Your task to perform on an android device: toggle notification dots Image 0: 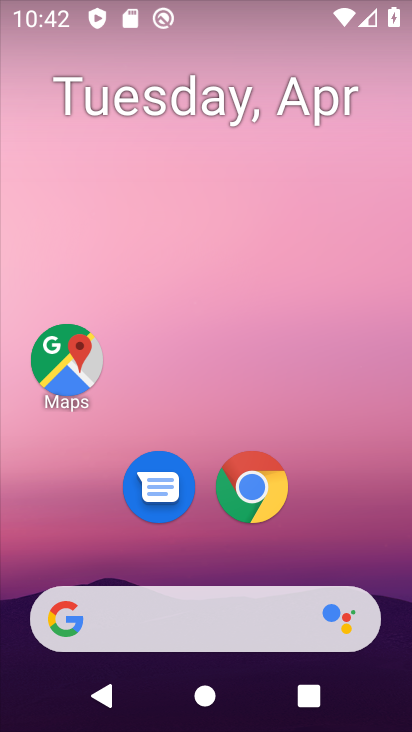
Step 0: drag from (226, 271) to (197, 173)
Your task to perform on an android device: toggle notification dots Image 1: 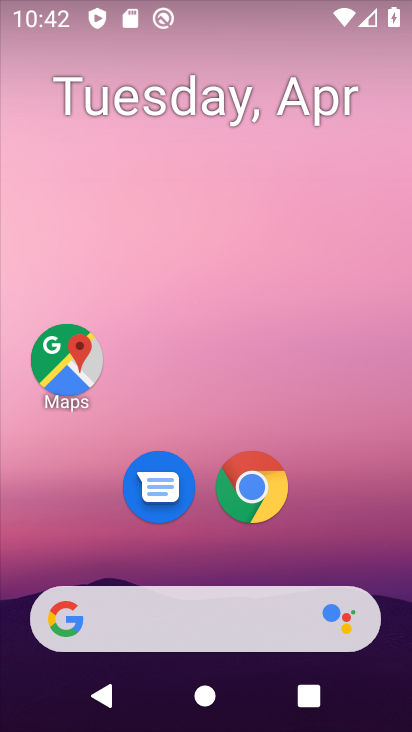
Step 1: drag from (220, 142) to (223, 24)
Your task to perform on an android device: toggle notification dots Image 2: 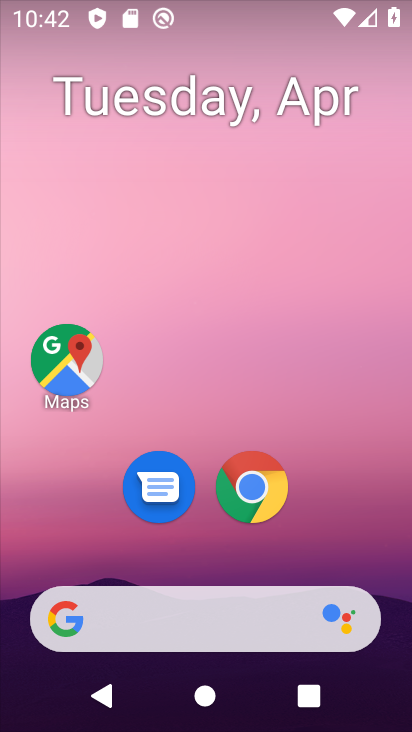
Step 2: drag from (216, 618) to (203, 211)
Your task to perform on an android device: toggle notification dots Image 3: 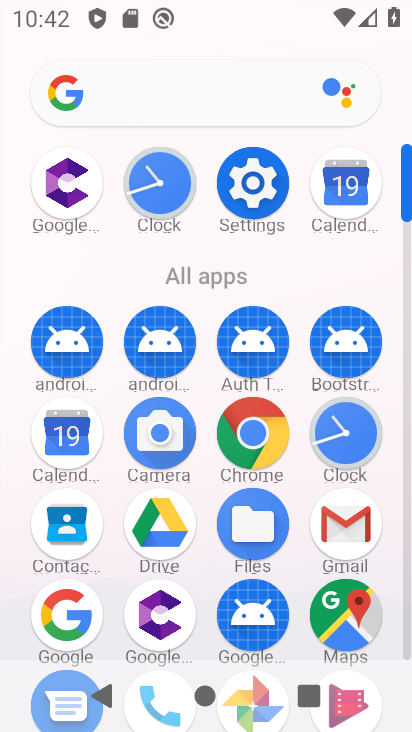
Step 3: click (254, 206)
Your task to perform on an android device: toggle notification dots Image 4: 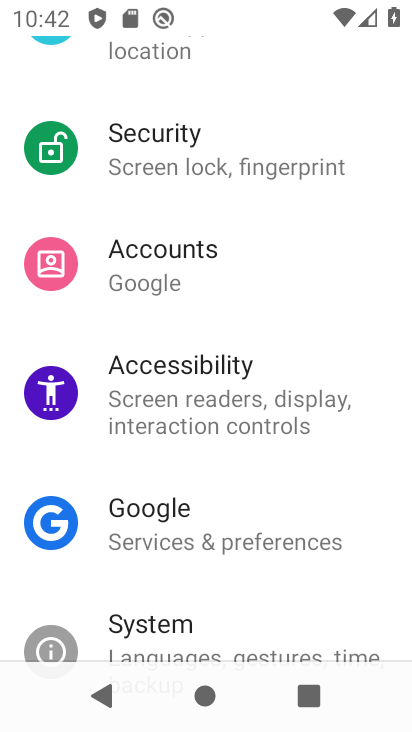
Step 4: drag from (235, 572) to (232, 696)
Your task to perform on an android device: toggle notification dots Image 5: 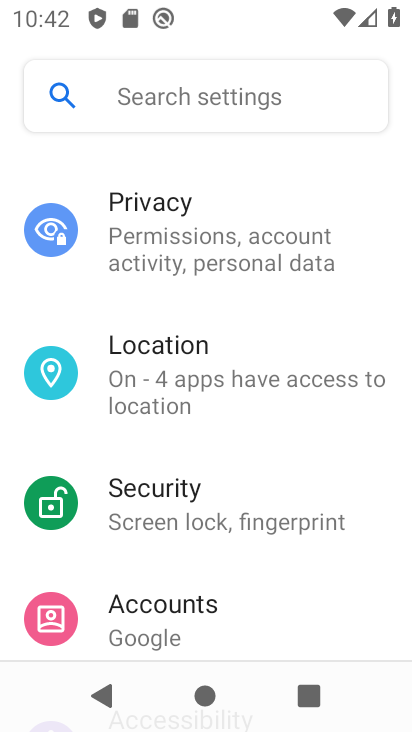
Step 5: drag from (239, 146) to (106, 694)
Your task to perform on an android device: toggle notification dots Image 6: 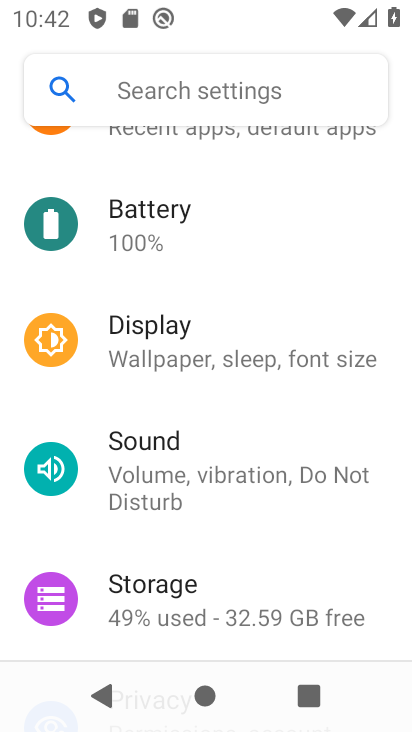
Step 6: drag from (215, 301) to (160, 693)
Your task to perform on an android device: toggle notification dots Image 7: 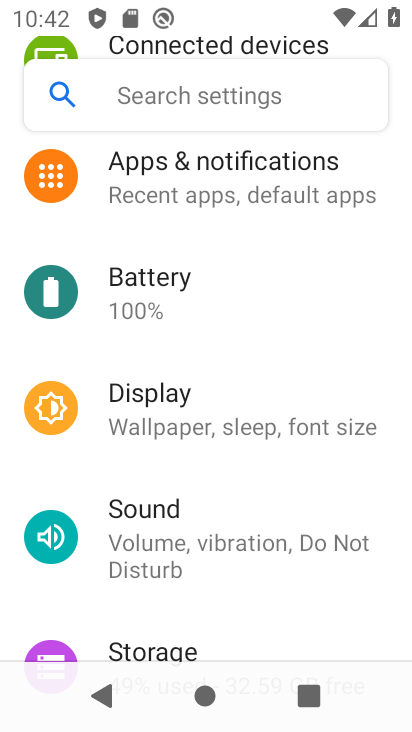
Step 7: click (201, 191)
Your task to perform on an android device: toggle notification dots Image 8: 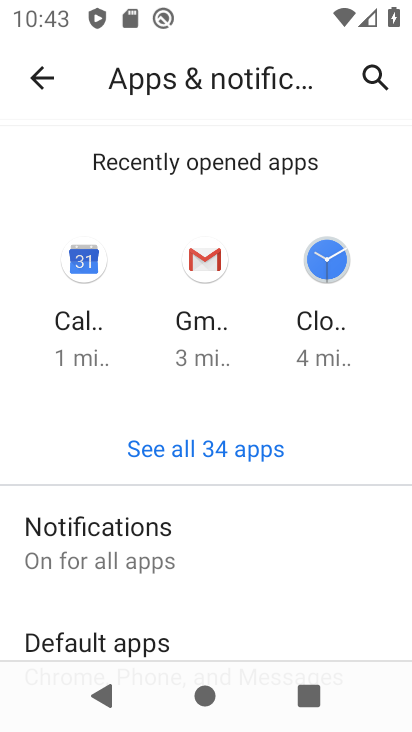
Step 8: click (157, 570)
Your task to perform on an android device: toggle notification dots Image 9: 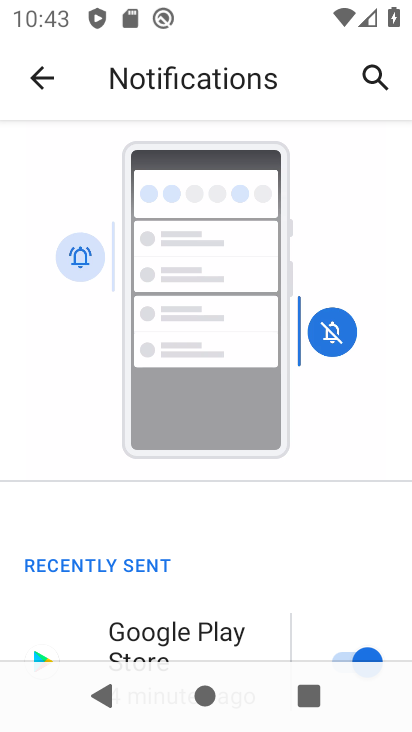
Step 9: drag from (208, 455) to (215, 253)
Your task to perform on an android device: toggle notification dots Image 10: 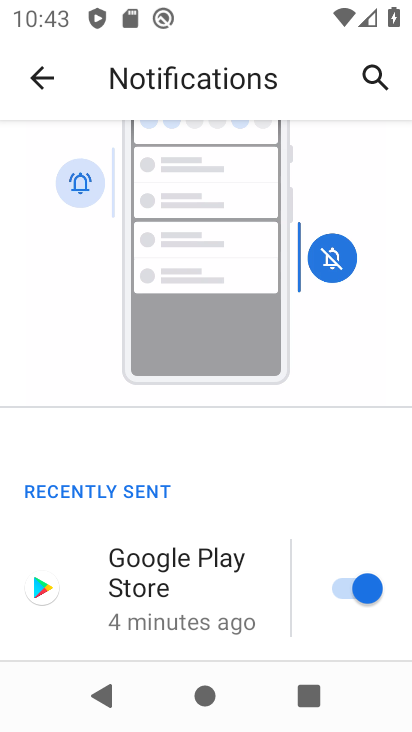
Step 10: drag from (164, 587) to (176, 169)
Your task to perform on an android device: toggle notification dots Image 11: 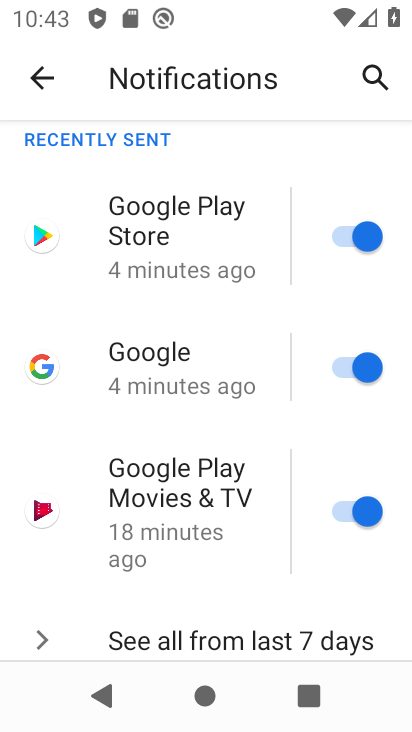
Step 11: drag from (184, 610) to (191, 159)
Your task to perform on an android device: toggle notification dots Image 12: 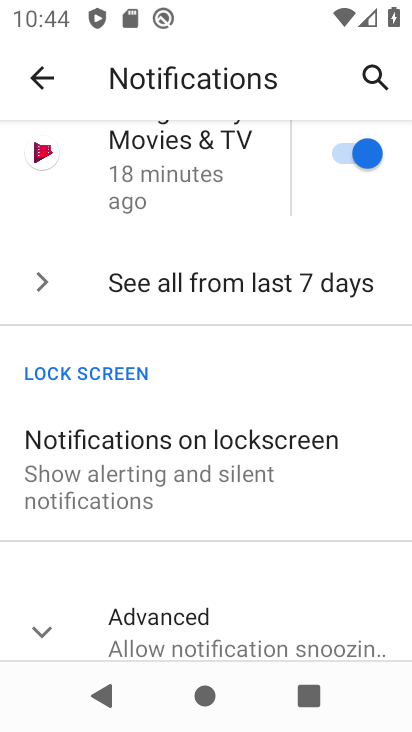
Step 12: click (148, 623)
Your task to perform on an android device: toggle notification dots Image 13: 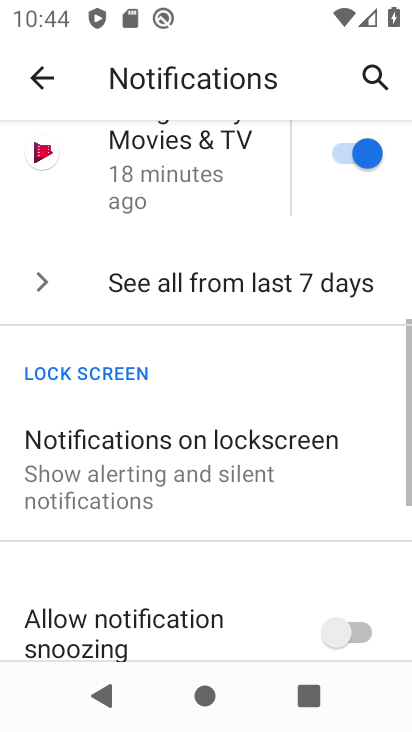
Step 13: drag from (237, 605) to (220, 152)
Your task to perform on an android device: toggle notification dots Image 14: 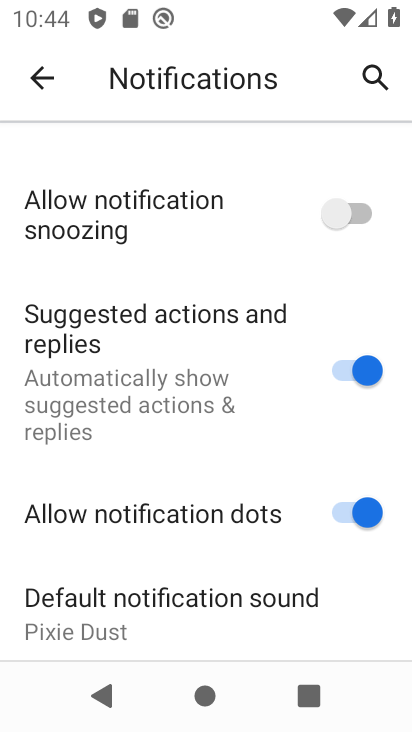
Step 14: click (357, 524)
Your task to perform on an android device: toggle notification dots Image 15: 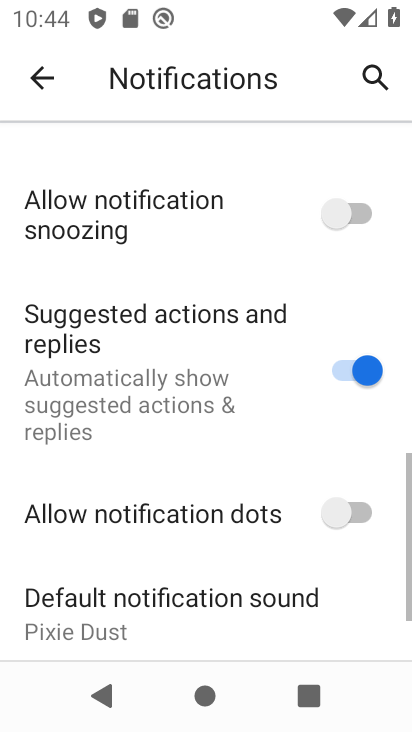
Step 15: task complete